Your task to perform on an android device: turn on wifi Image 0: 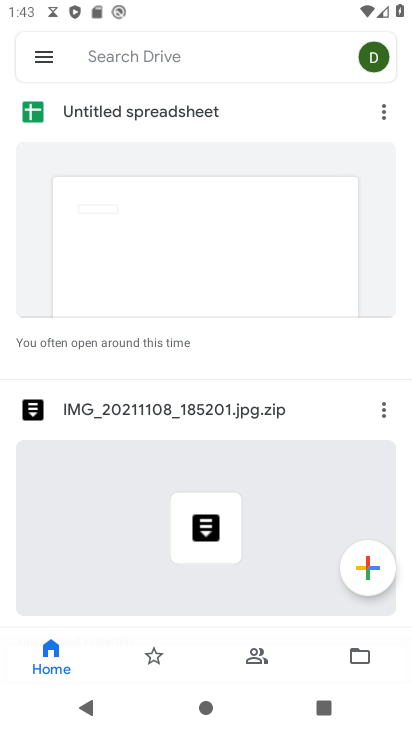
Step 0: press home button
Your task to perform on an android device: turn on wifi Image 1: 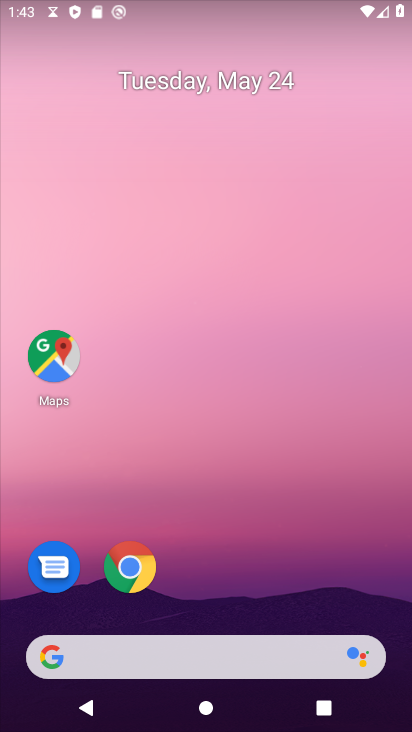
Step 1: drag from (230, 569) to (324, 134)
Your task to perform on an android device: turn on wifi Image 2: 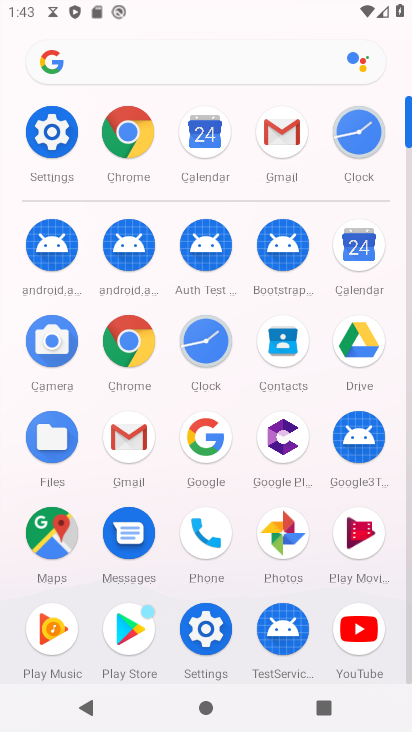
Step 2: click (58, 139)
Your task to perform on an android device: turn on wifi Image 3: 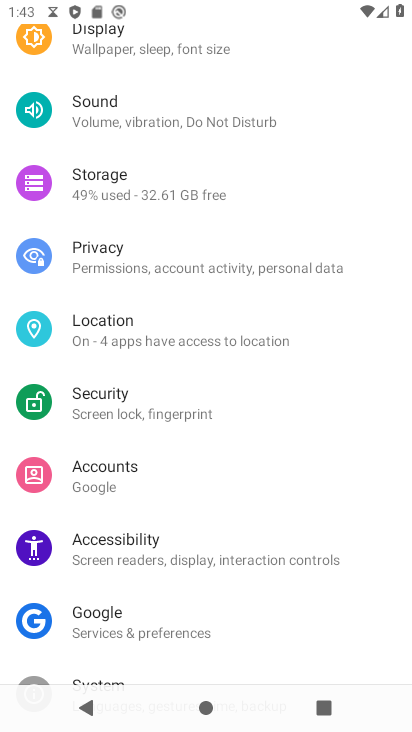
Step 3: drag from (227, 217) to (205, 477)
Your task to perform on an android device: turn on wifi Image 4: 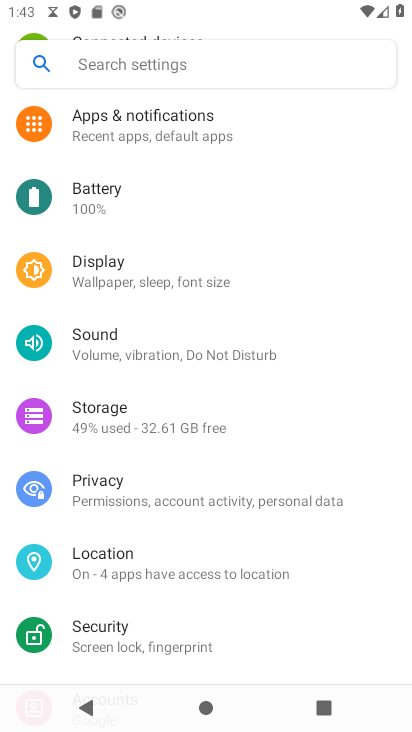
Step 4: drag from (178, 164) to (181, 361)
Your task to perform on an android device: turn on wifi Image 5: 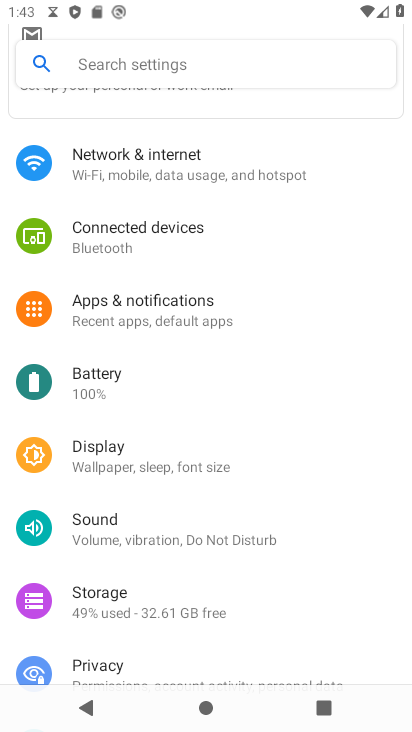
Step 5: drag from (162, 155) to (156, 402)
Your task to perform on an android device: turn on wifi Image 6: 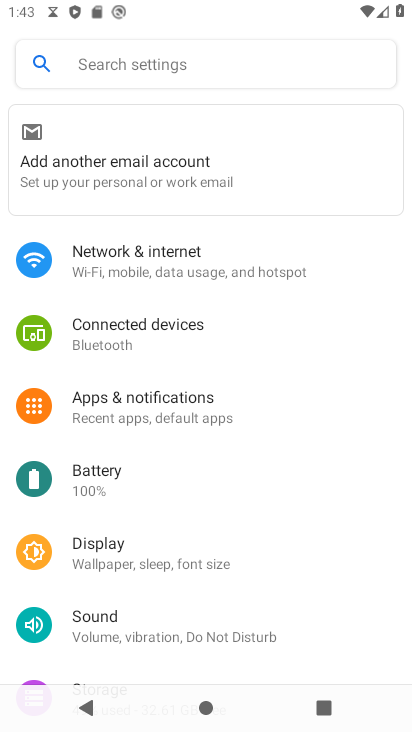
Step 6: click (157, 264)
Your task to perform on an android device: turn on wifi Image 7: 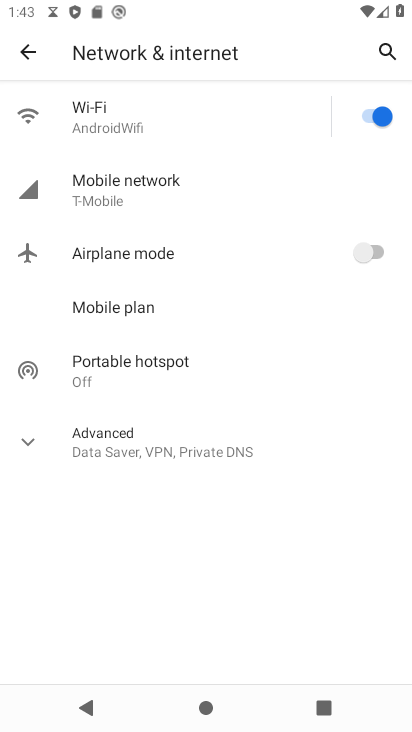
Step 7: task complete